Your task to perform on an android device: Search for good Italian restaurants Image 0: 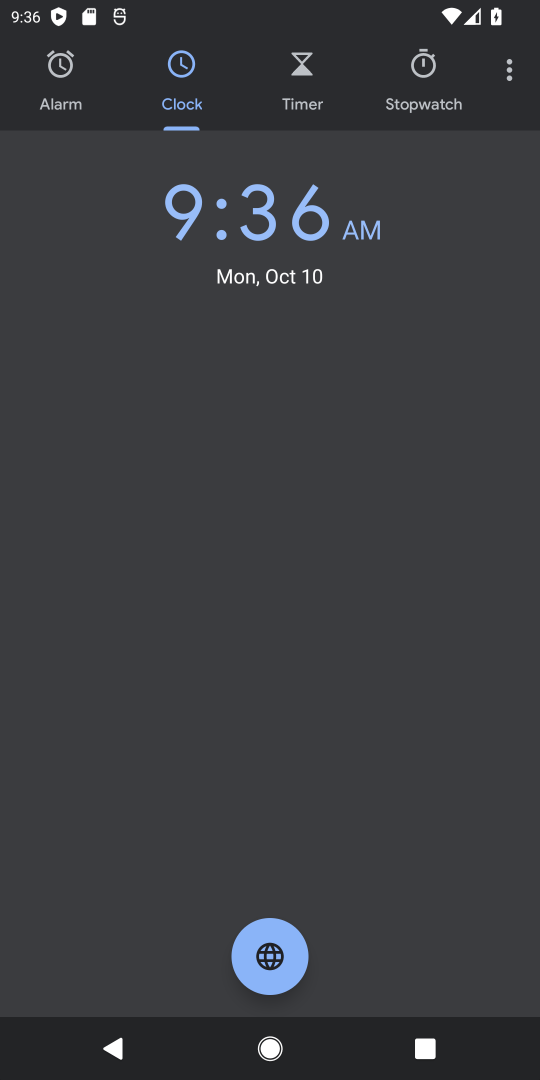
Step 0: press home button
Your task to perform on an android device: Search for good Italian restaurants Image 1: 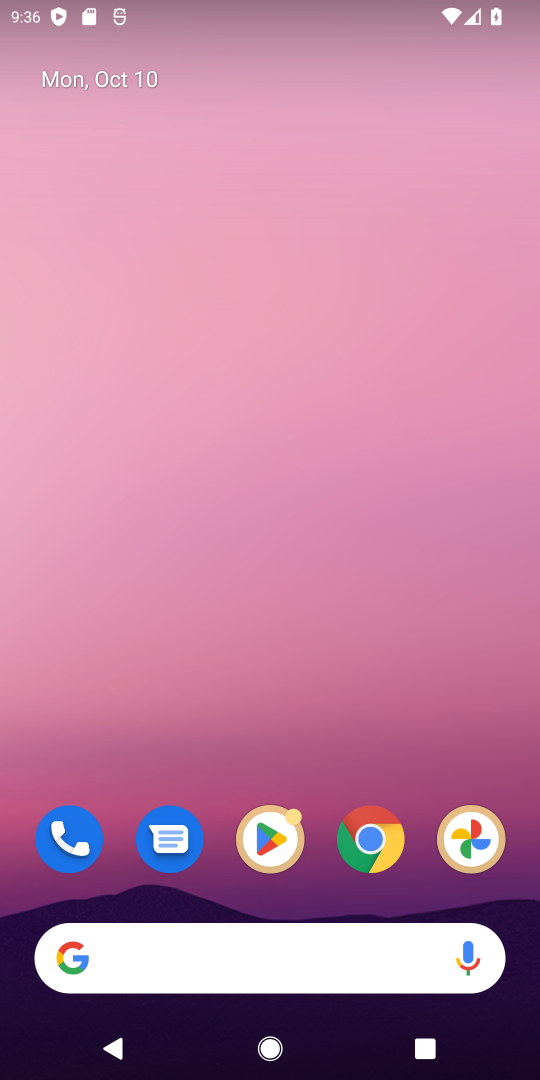
Step 1: drag from (330, 777) to (498, 74)
Your task to perform on an android device: Search for good Italian restaurants Image 2: 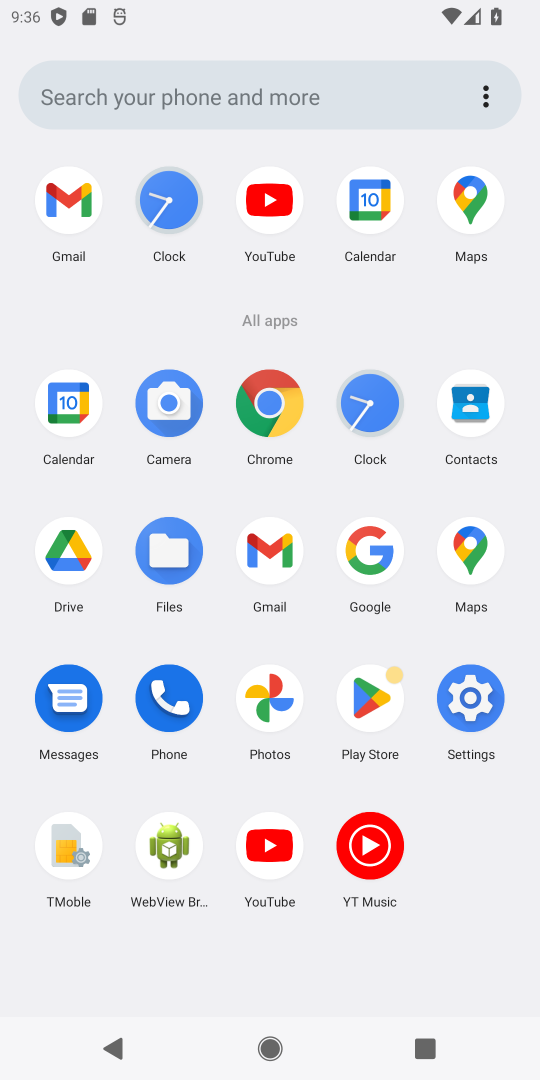
Step 2: click (266, 403)
Your task to perform on an android device: Search for good Italian restaurants Image 3: 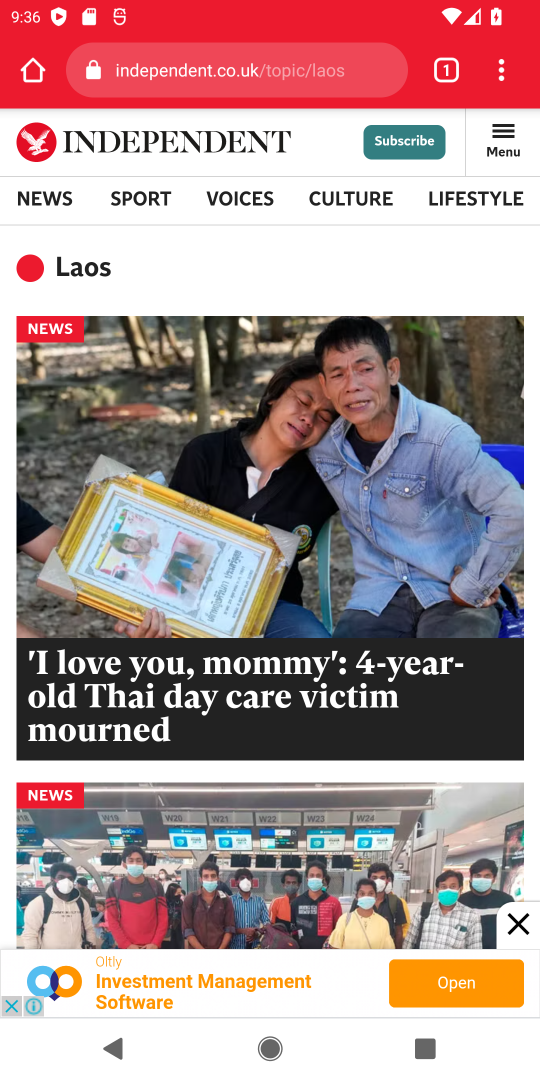
Step 3: click (269, 48)
Your task to perform on an android device: Search for good Italian restaurants Image 4: 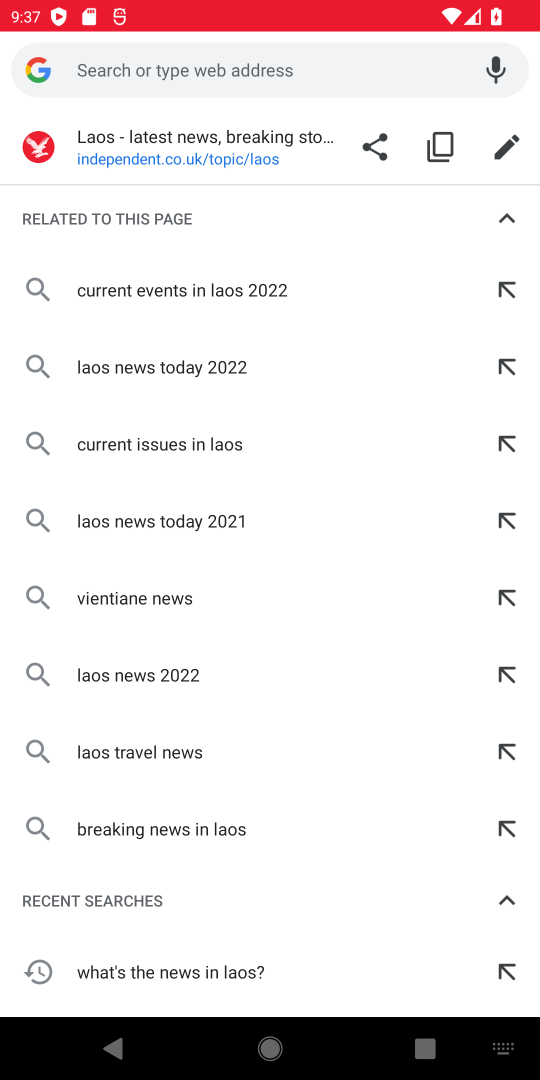
Step 4: type "good Italian restaurants"
Your task to perform on an android device: Search for good Italian restaurants Image 5: 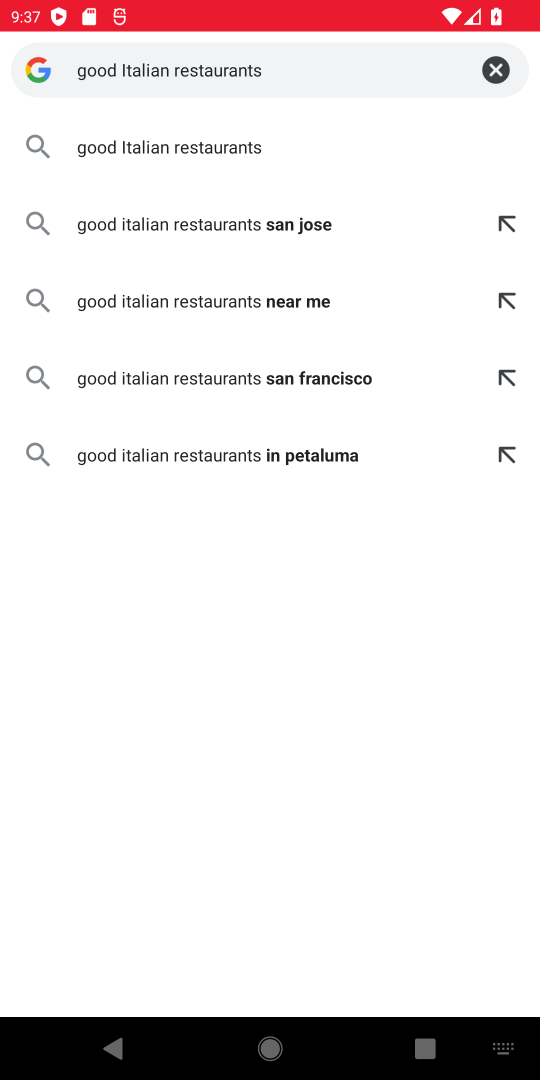
Step 5: press enter
Your task to perform on an android device: Search for good Italian restaurants Image 6: 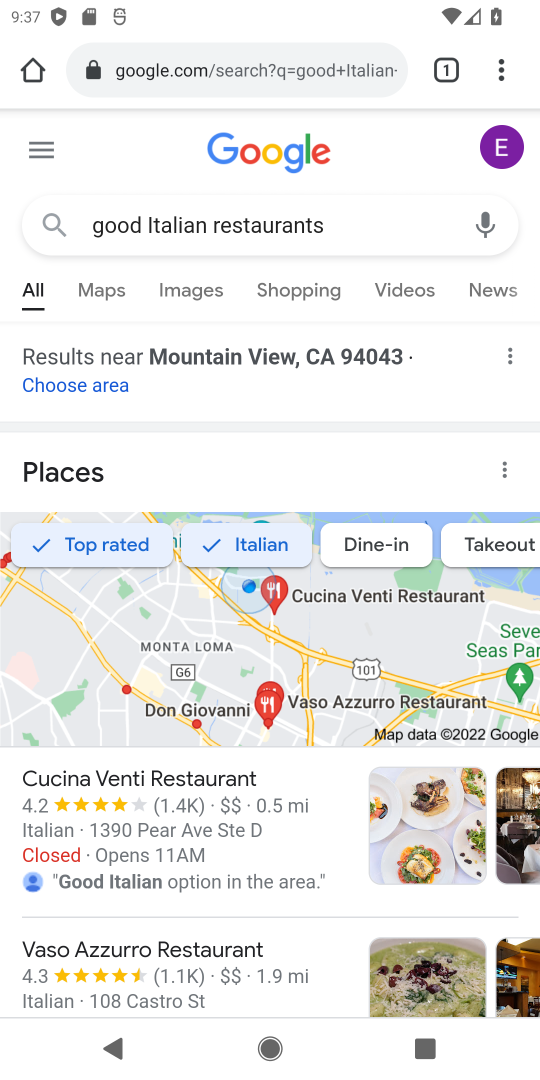
Step 6: task complete